Your task to perform on an android device: install app "Pandora - Music & Podcasts" Image 0: 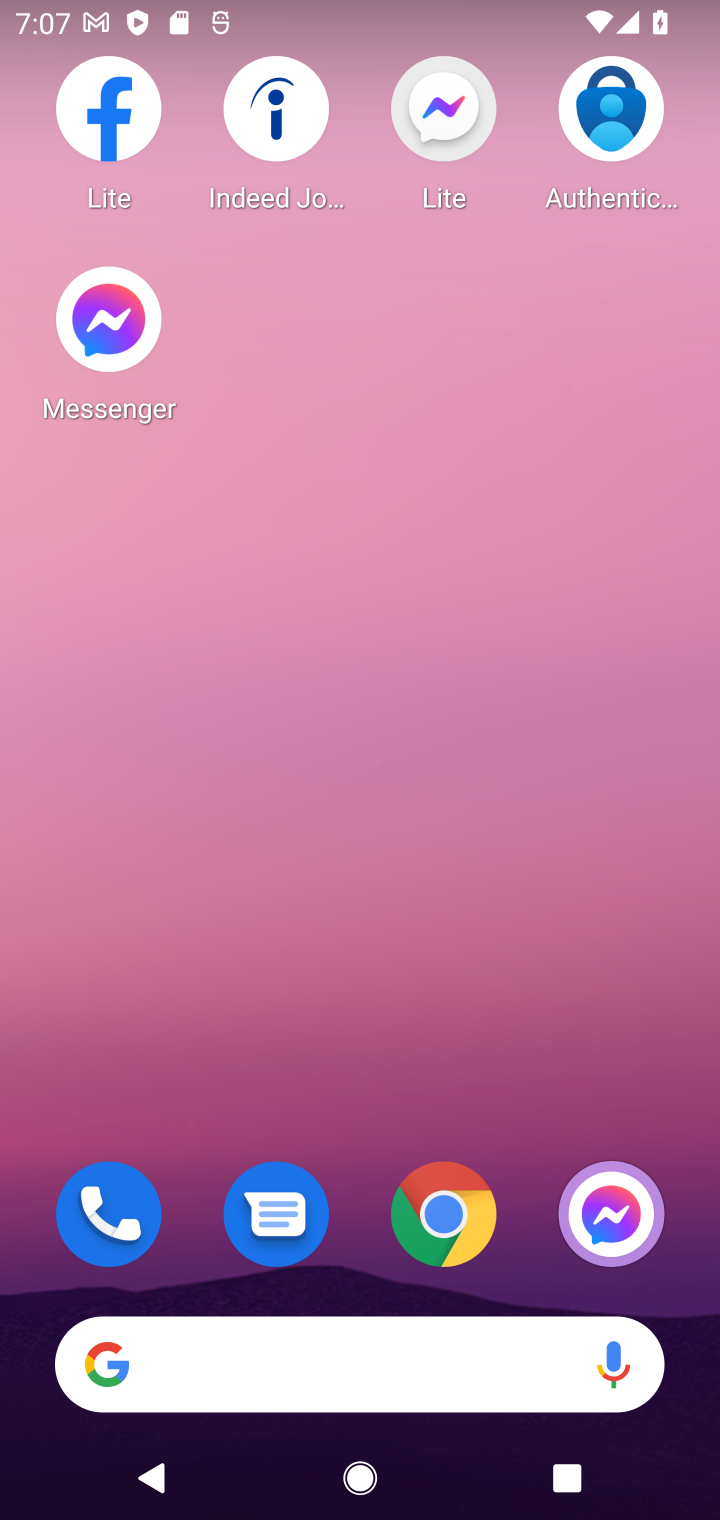
Step 0: drag from (362, 1288) to (359, 172)
Your task to perform on an android device: install app "Pandora - Music & Podcasts" Image 1: 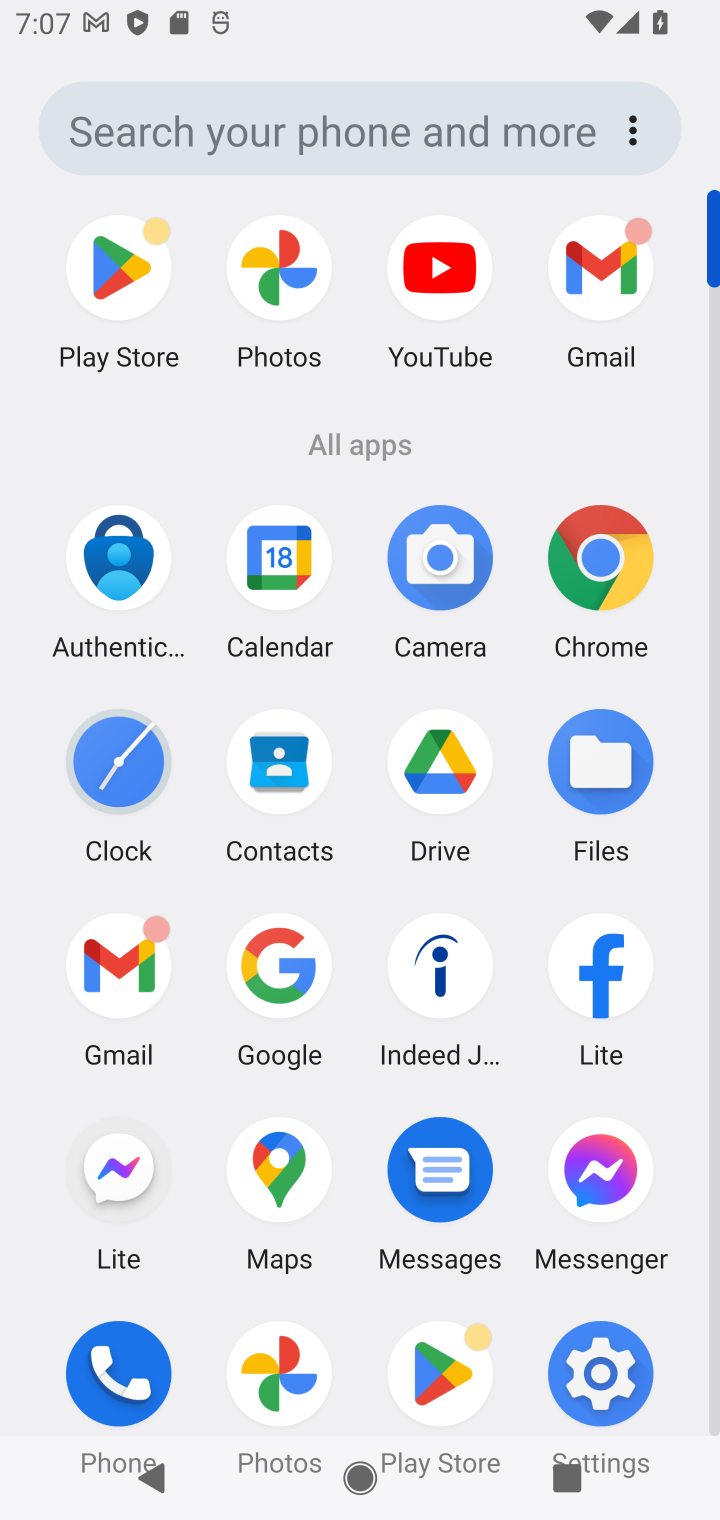
Step 1: click (75, 274)
Your task to perform on an android device: install app "Pandora - Music & Podcasts" Image 2: 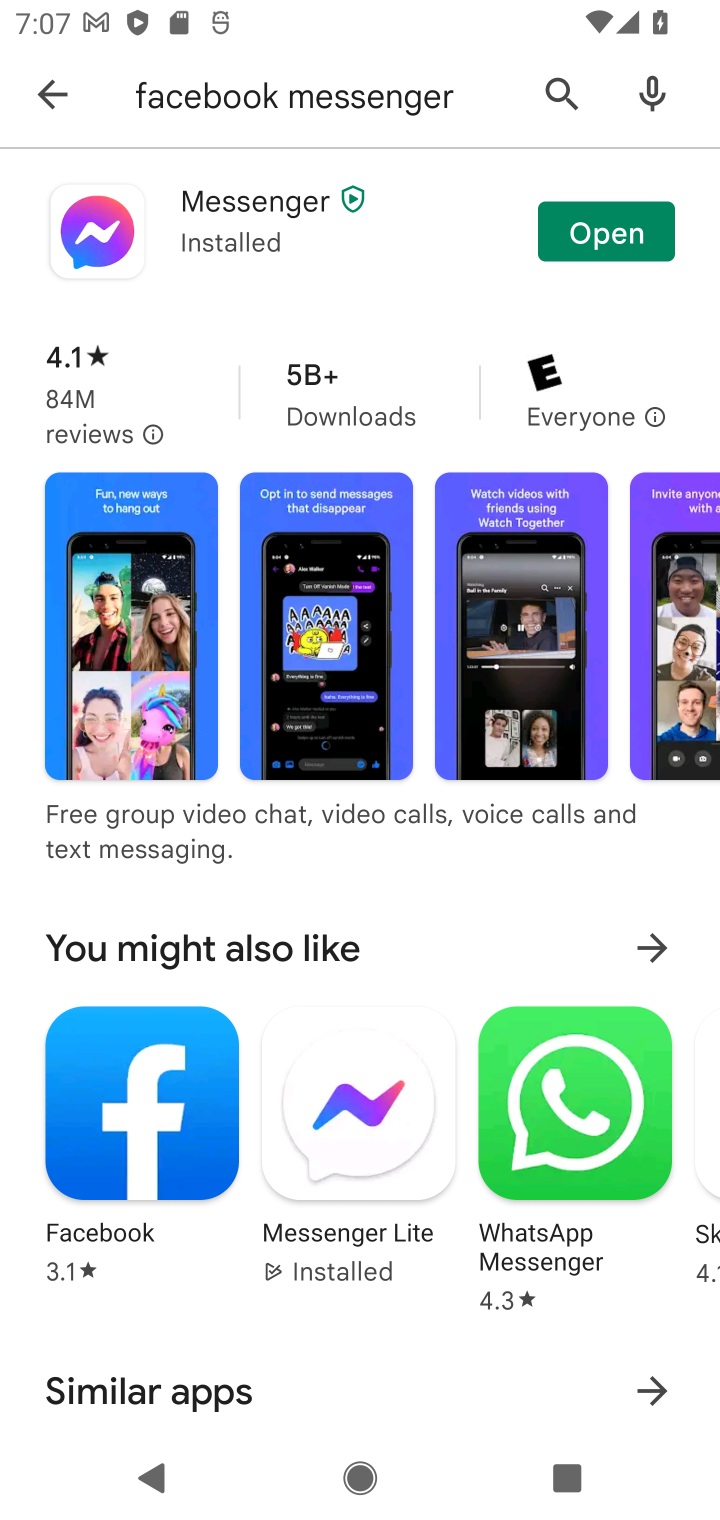
Step 2: click (583, 106)
Your task to perform on an android device: install app "Pandora - Music & Podcasts" Image 3: 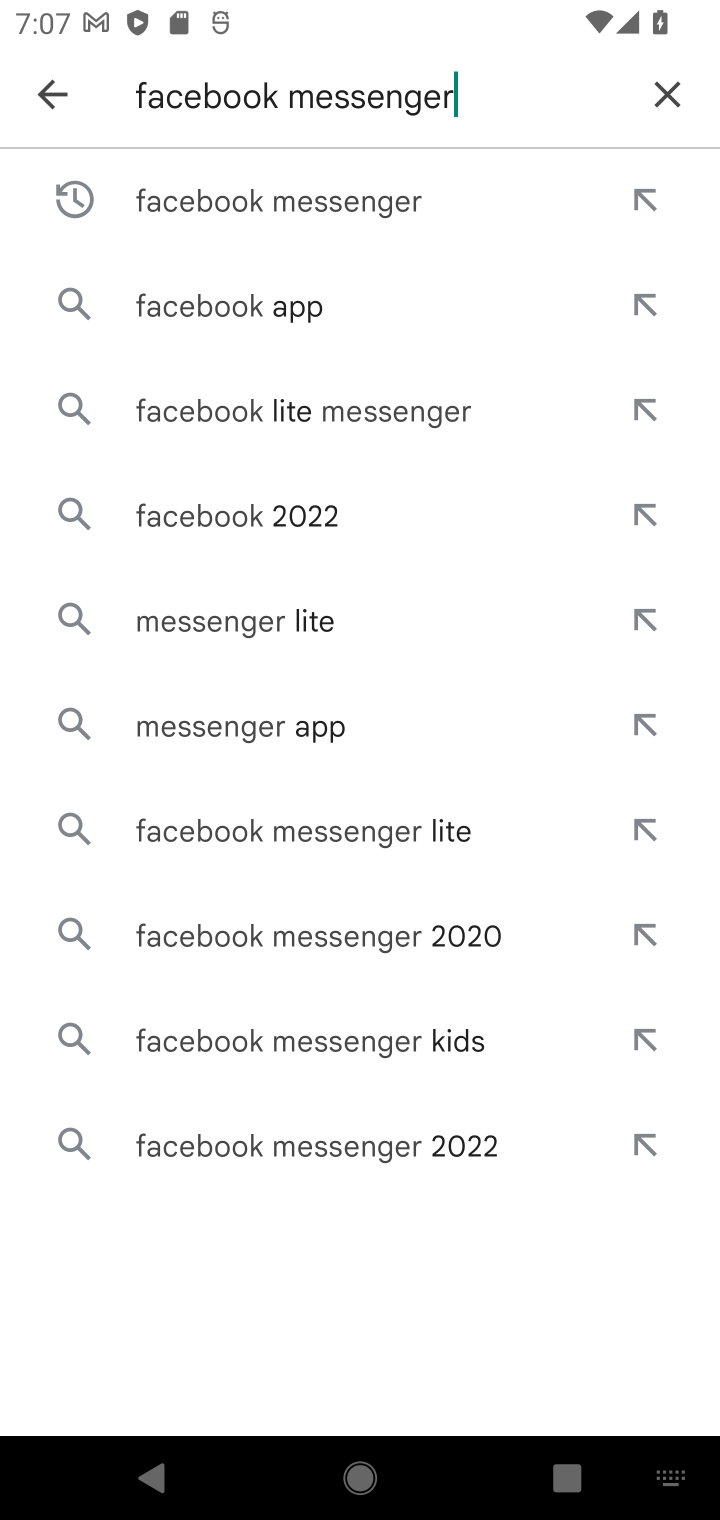
Step 3: click (669, 80)
Your task to perform on an android device: install app "Pandora - Music & Podcasts" Image 4: 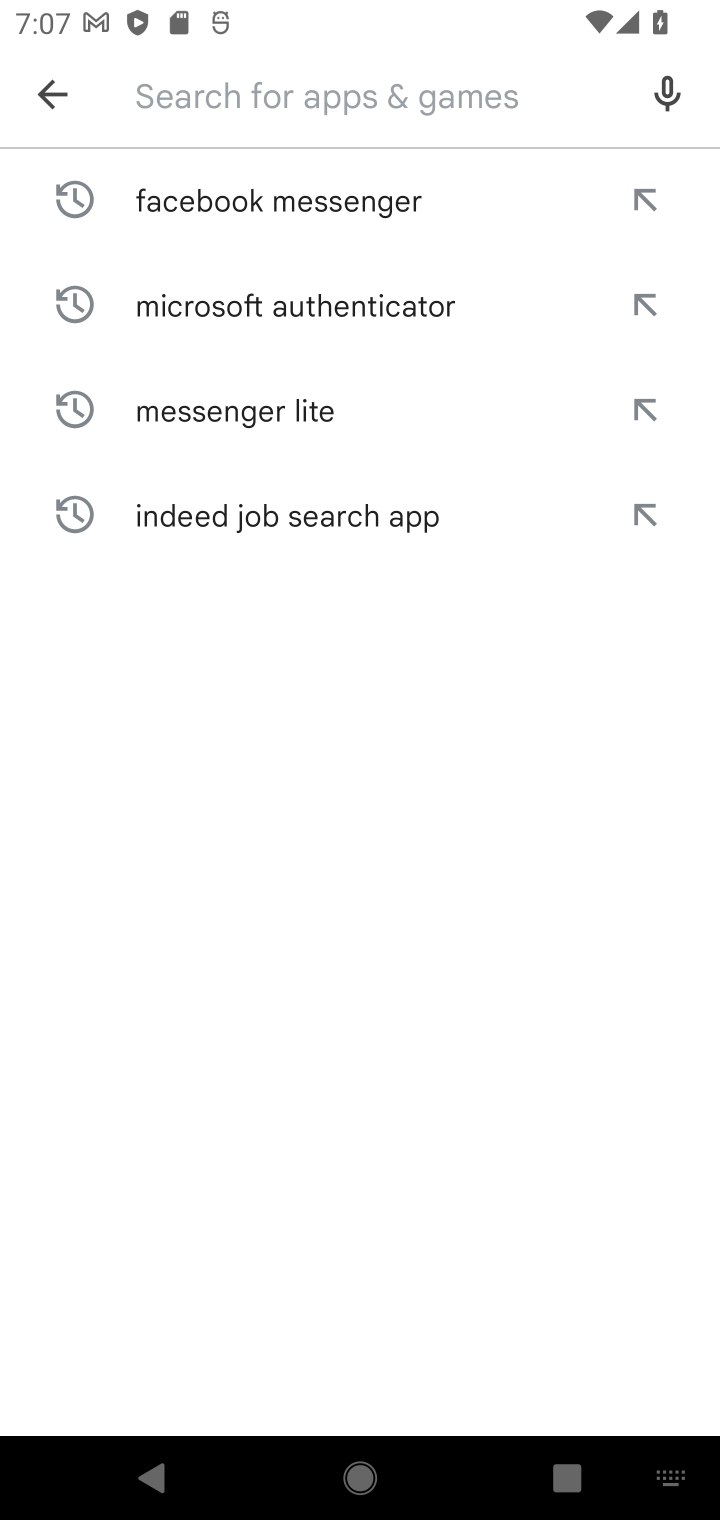
Step 4: click (411, 95)
Your task to perform on an android device: install app "Pandora - Music & Podcasts" Image 5: 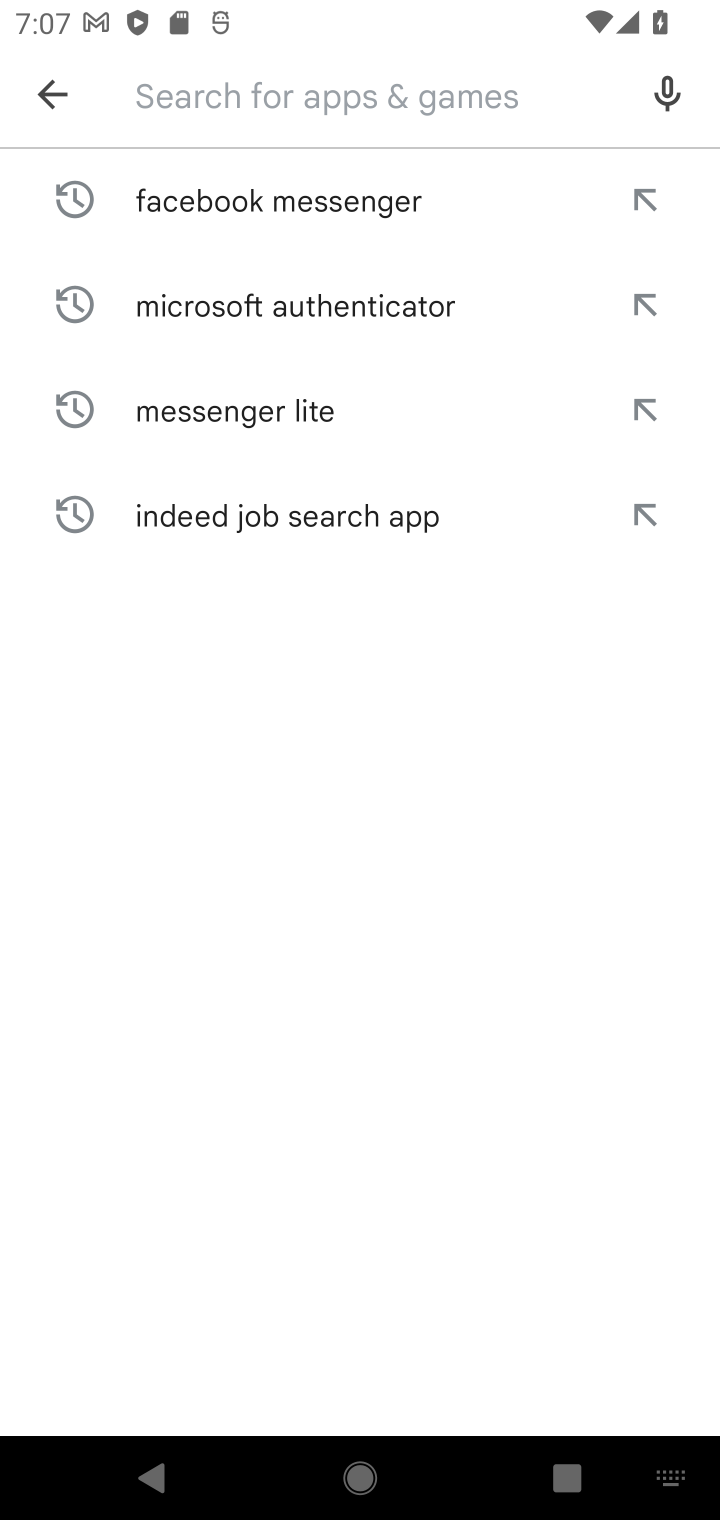
Step 5: type "pandora"
Your task to perform on an android device: install app "Pandora - Music & Podcasts" Image 6: 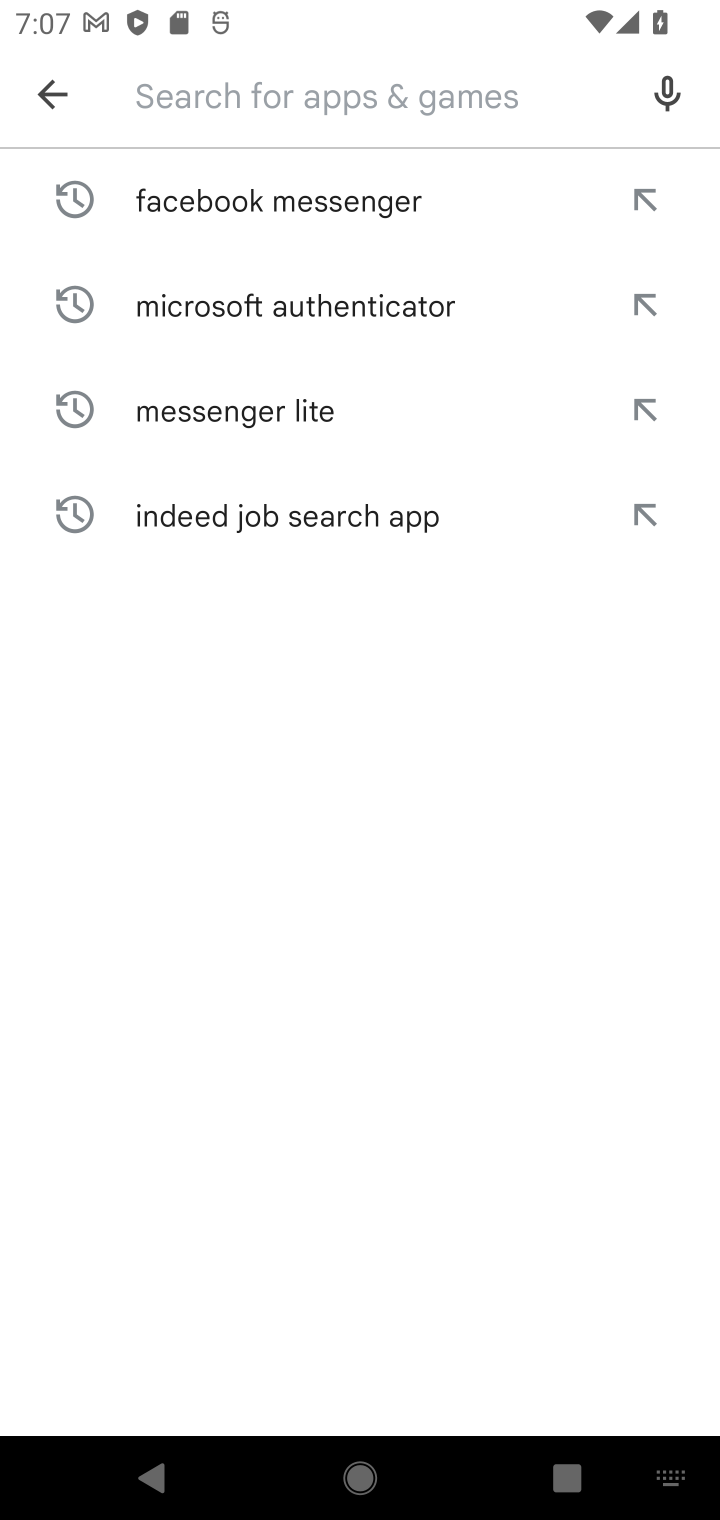
Step 6: click (309, 87)
Your task to perform on an android device: install app "Pandora - Music & Podcasts" Image 7: 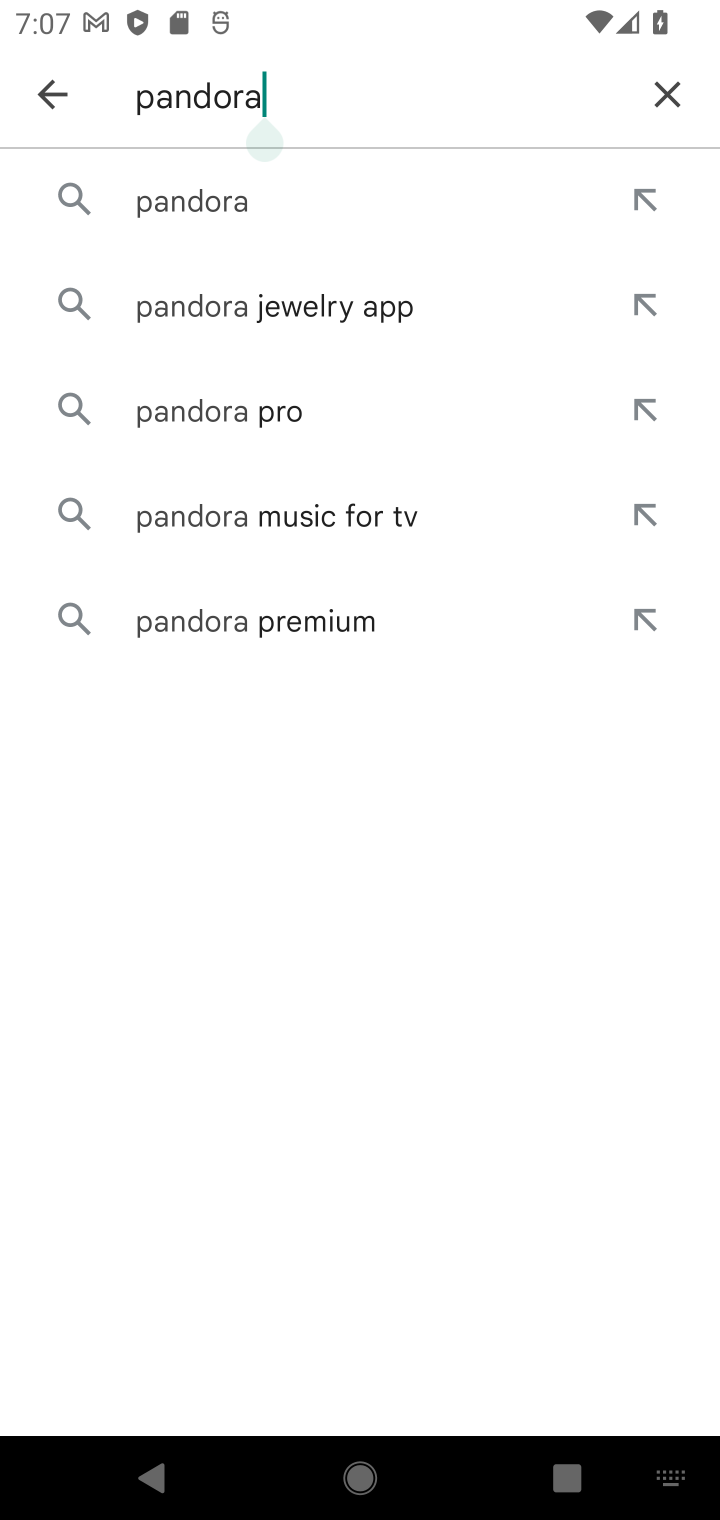
Step 7: click (174, 209)
Your task to perform on an android device: install app "Pandora - Music & Podcasts" Image 8: 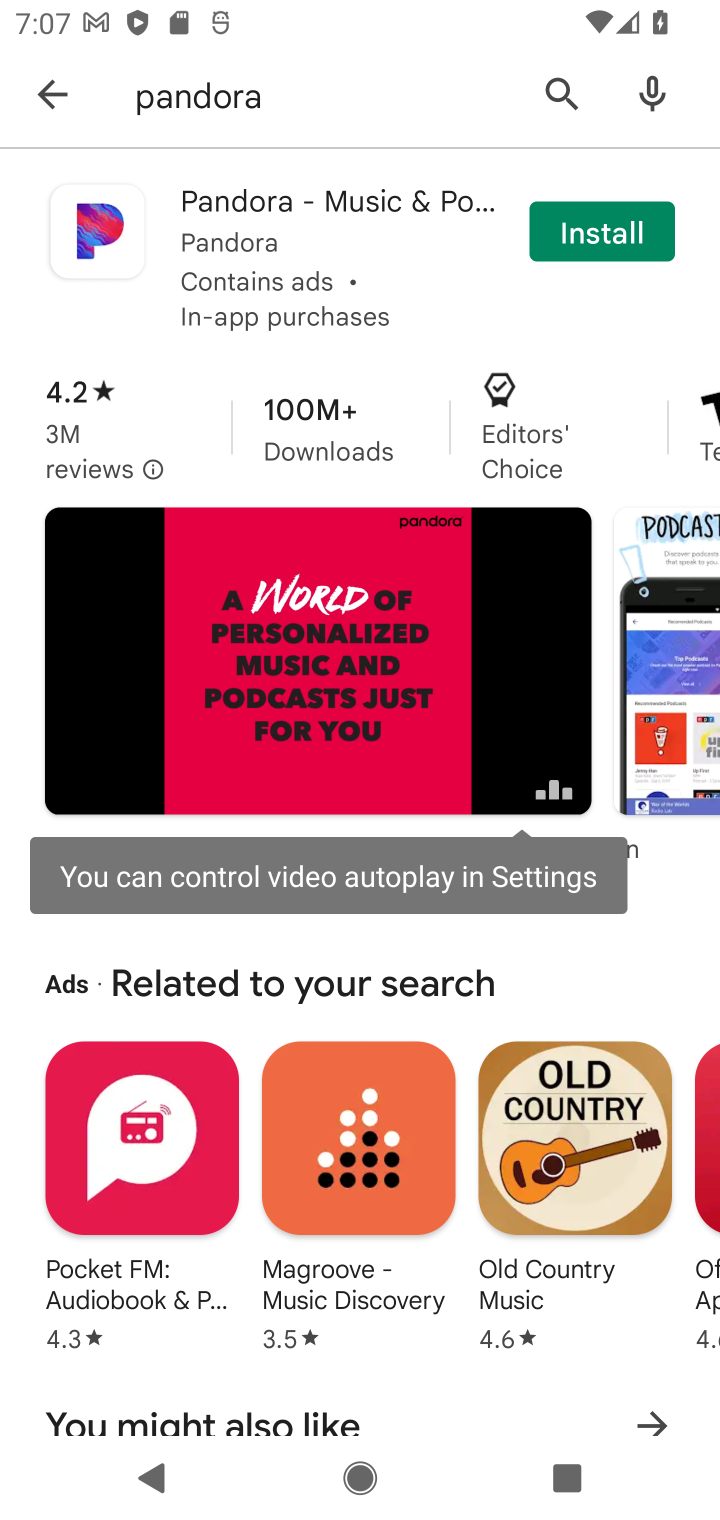
Step 8: click (630, 219)
Your task to perform on an android device: install app "Pandora - Music & Podcasts" Image 9: 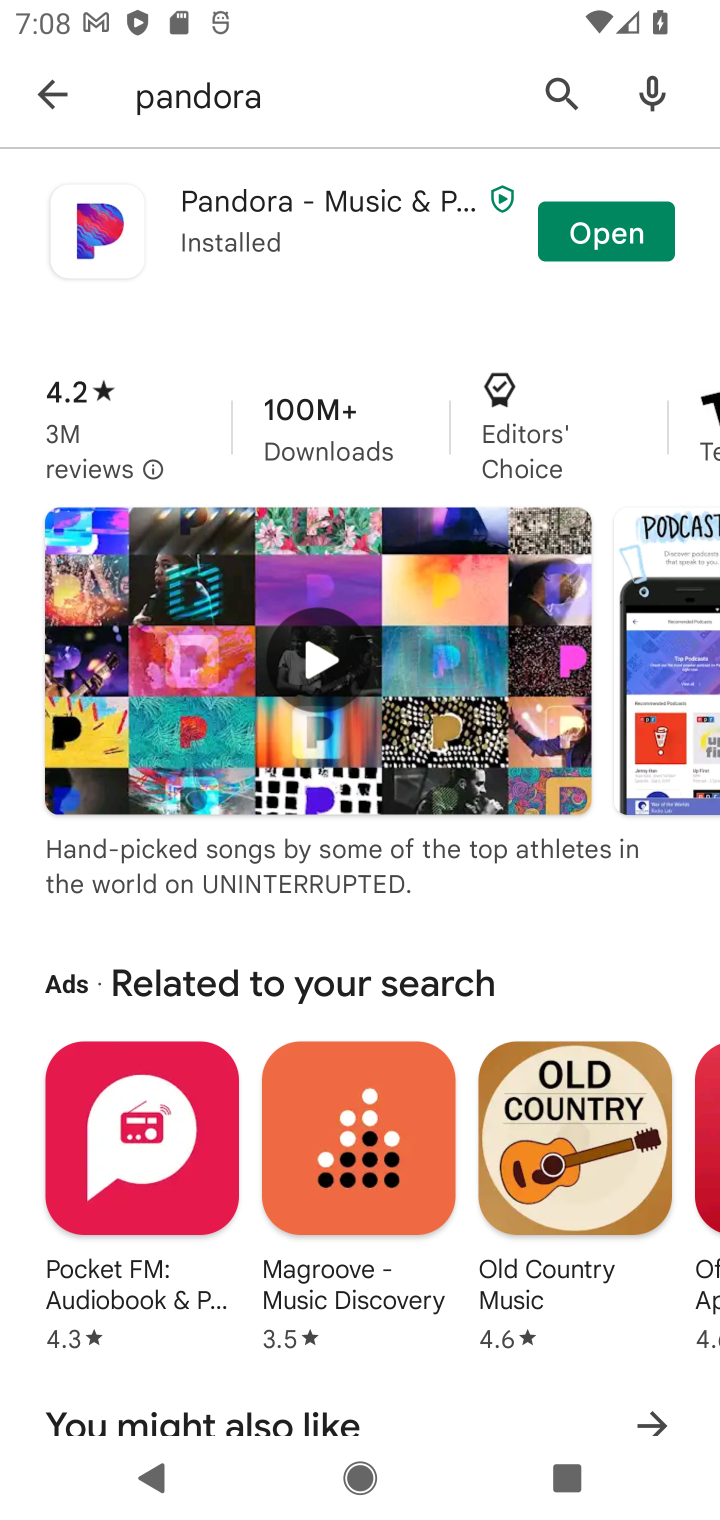
Step 9: click (593, 239)
Your task to perform on an android device: install app "Pandora - Music & Podcasts" Image 10: 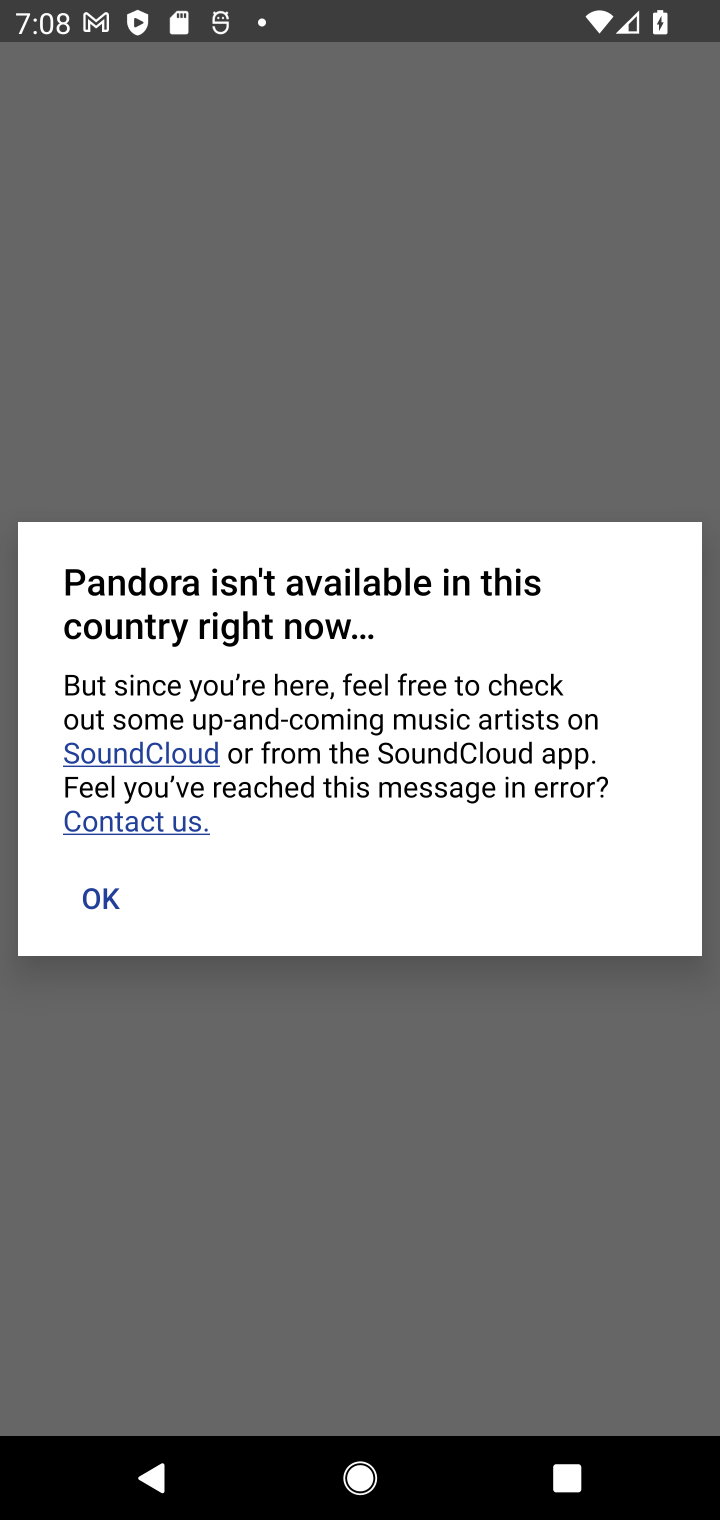
Step 10: click (104, 914)
Your task to perform on an android device: install app "Pandora - Music & Podcasts" Image 11: 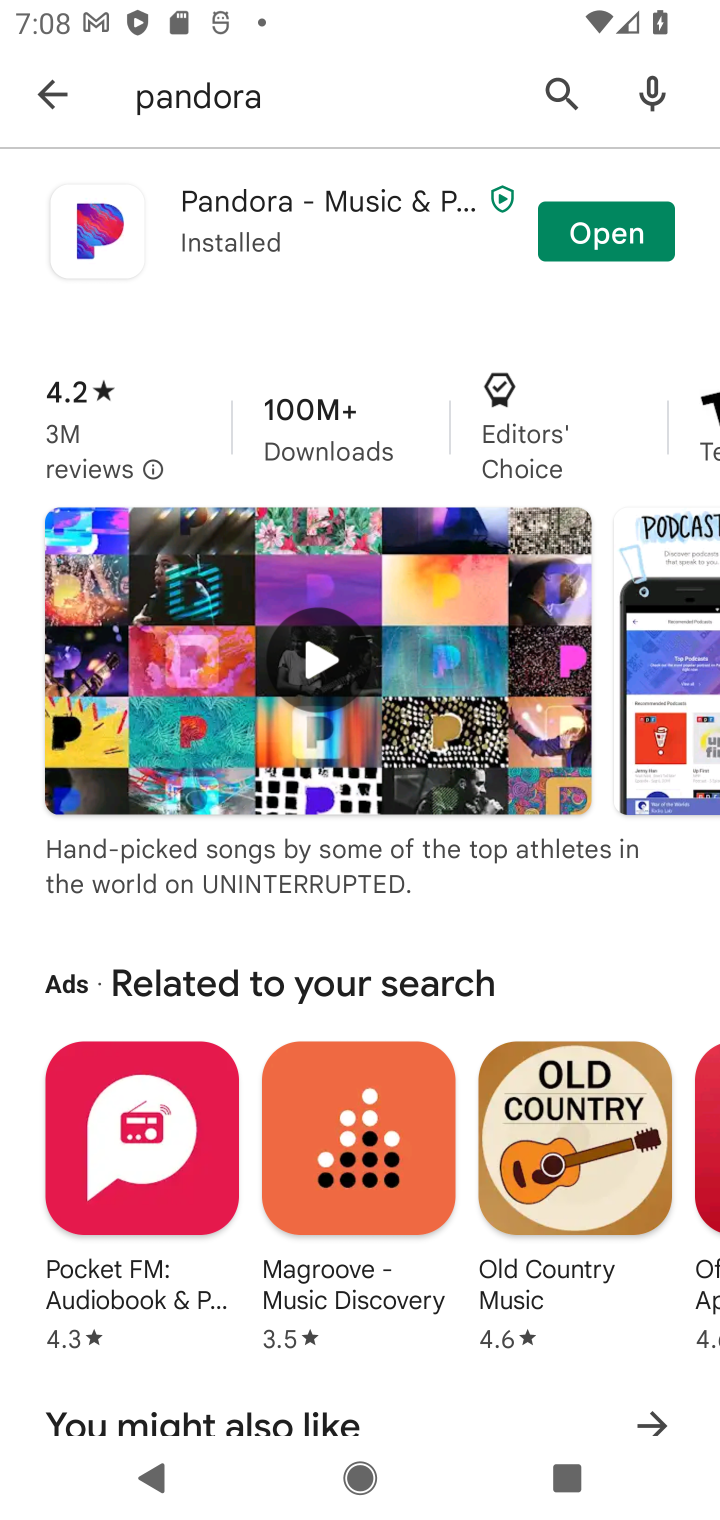
Step 11: task complete